Your task to perform on an android device: change the clock display to show seconds Image 0: 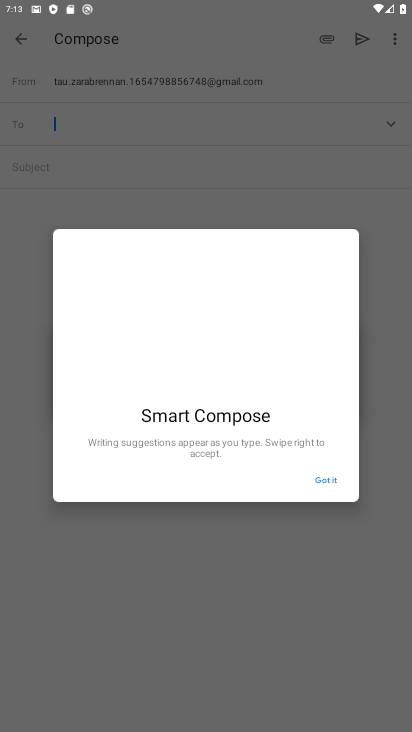
Step 0: press home button
Your task to perform on an android device: change the clock display to show seconds Image 1: 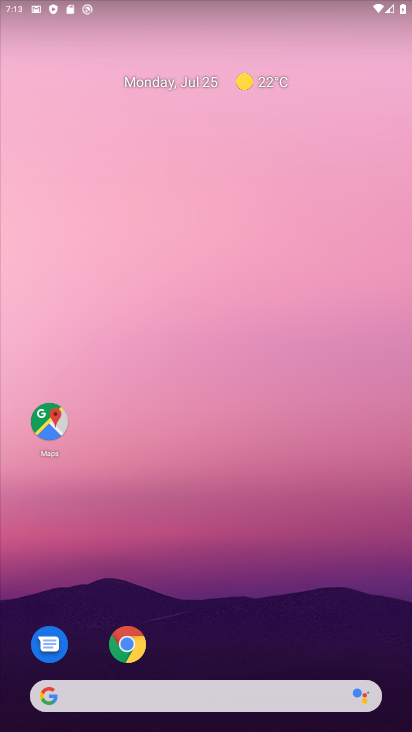
Step 1: drag from (240, 629) to (271, 48)
Your task to perform on an android device: change the clock display to show seconds Image 2: 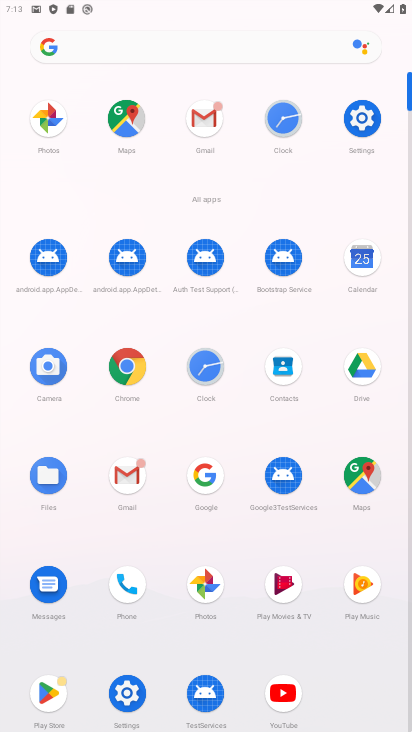
Step 2: click (205, 366)
Your task to perform on an android device: change the clock display to show seconds Image 3: 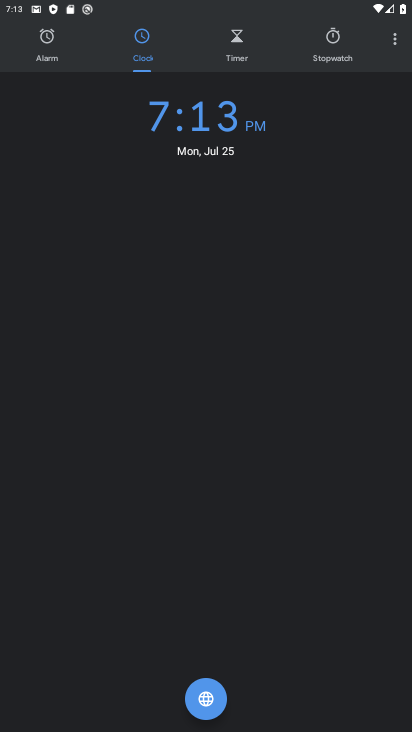
Step 3: click (389, 40)
Your task to perform on an android device: change the clock display to show seconds Image 4: 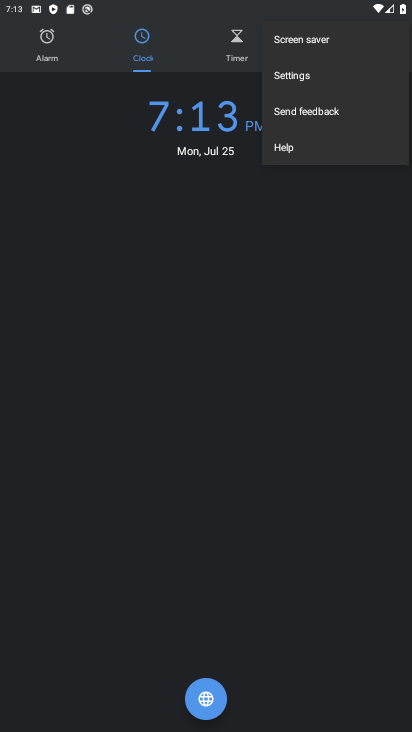
Step 4: click (310, 76)
Your task to perform on an android device: change the clock display to show seconds Image 5: 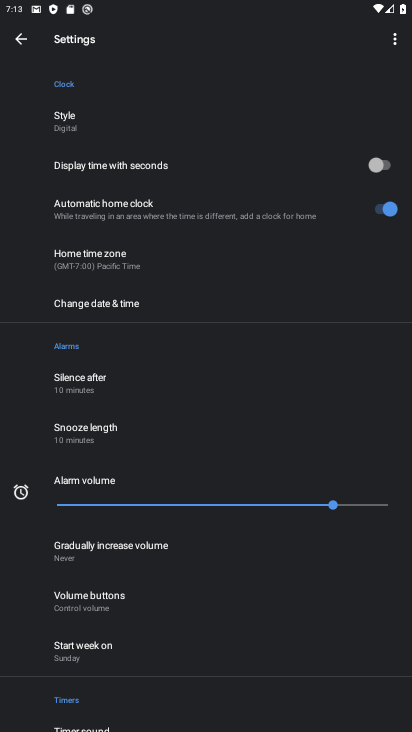
Step 5: click (385, 160)
Your task to perform on an android device: change the clock display to show seconds Image 6: 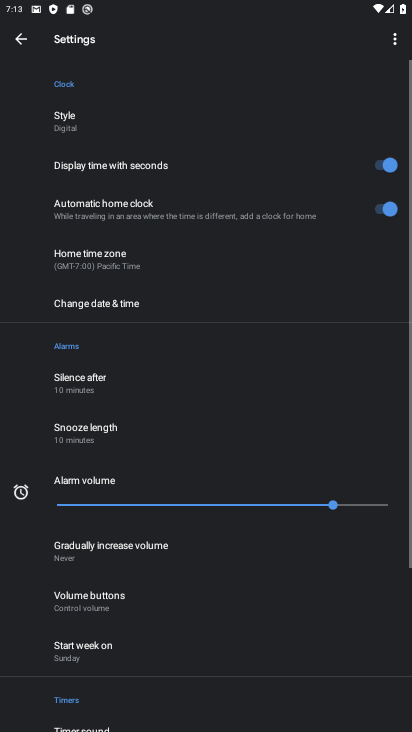
Step 6: task complete